Your task to perform on an android device: Open the calculator app Image 0: 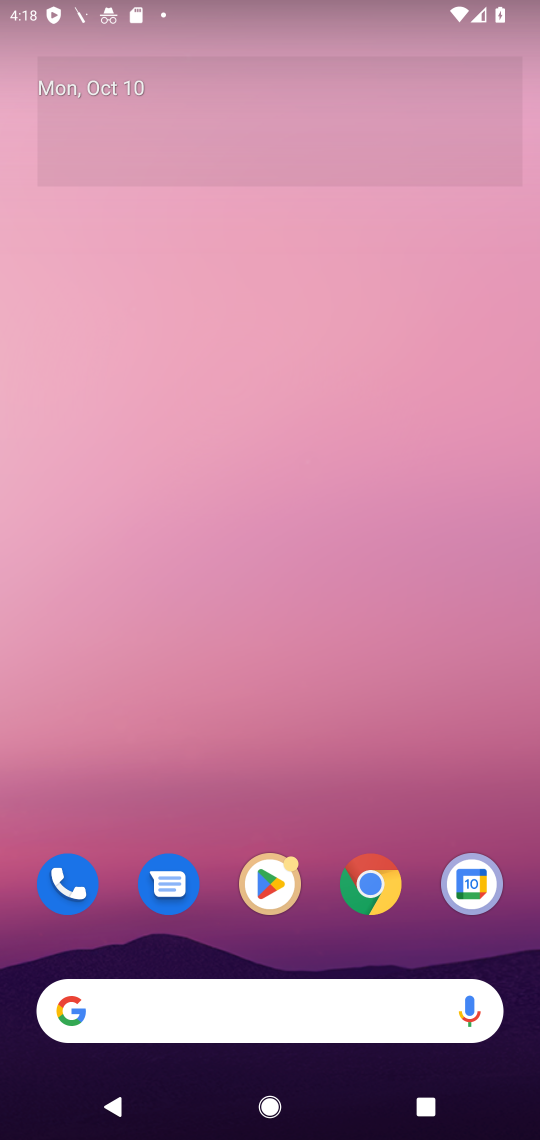
Step 0: drag from (298, 798) to (235, 82)
Your task to perform on an android device: Open the calculator app Image 1: 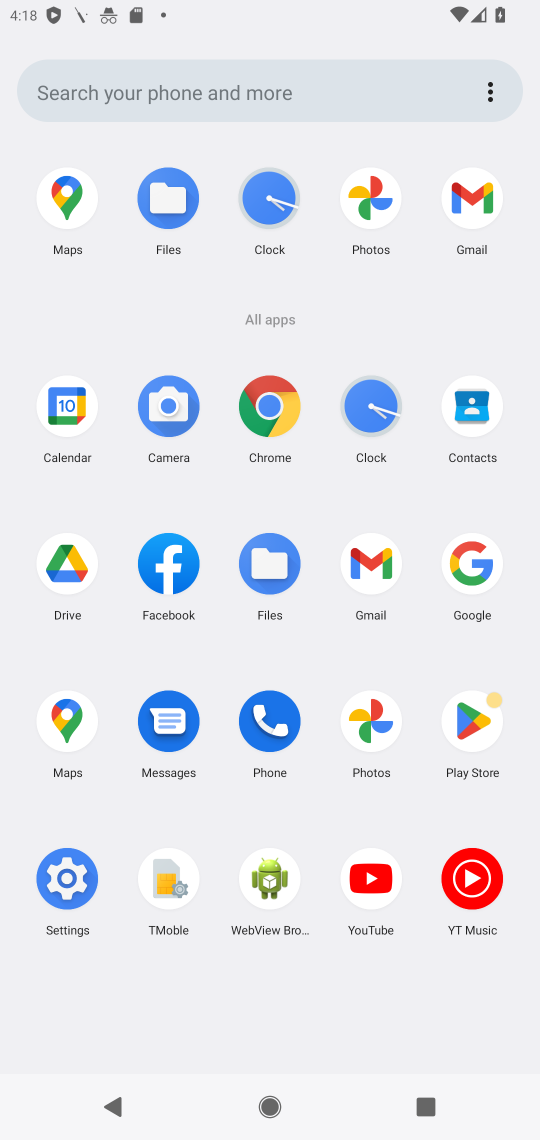
Step 1: click (167, 80)
Your task to perform on an android device: Open the calculator app Image 2: 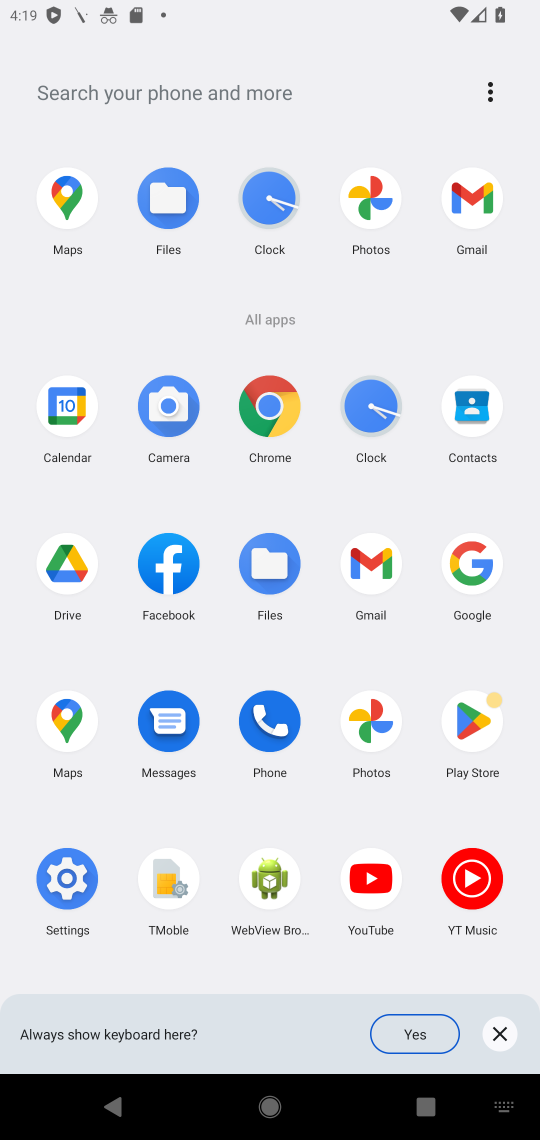
Step 2: type "calculator"
Your task to perform on an android device: Open the calculator app Image 3: 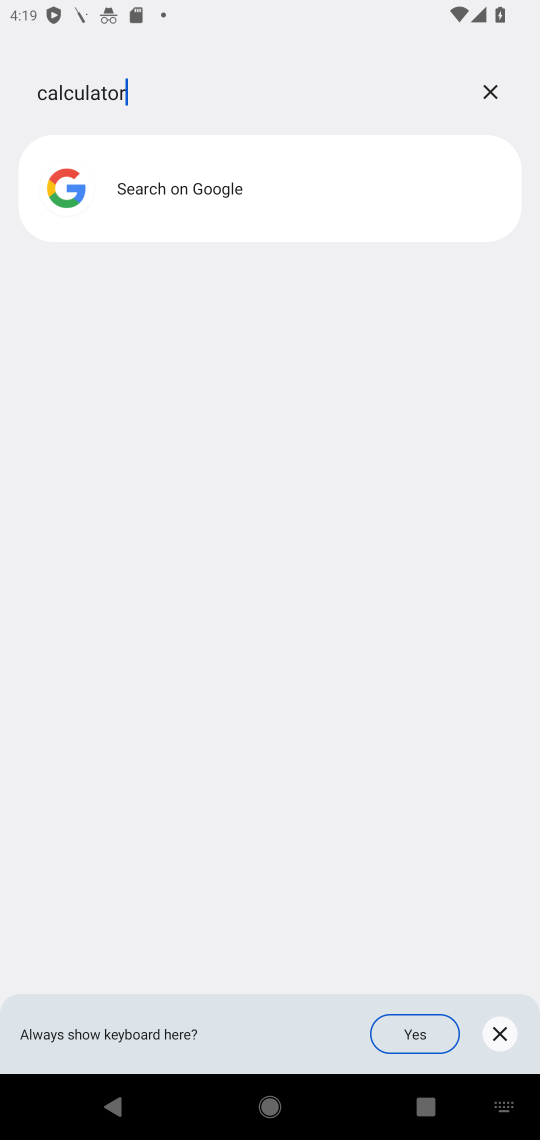
Step 3: task complete